Your task to perform on an android device: set the stopwatch Image 0: 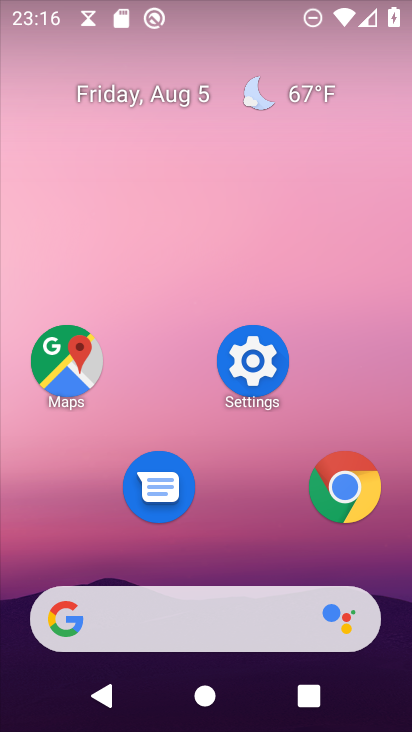
Step 0: press home button
Your task to perform on an android device: set the stopwatch Image 1: 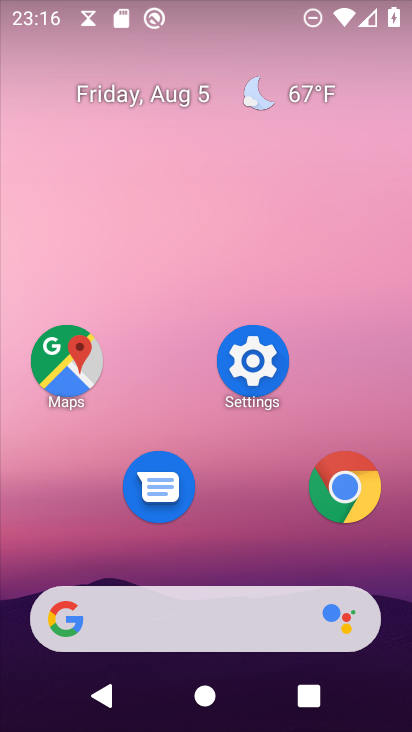
Step 1: drag from (185, 610) to (271, 83)
Your task to perform on an android device: set the stopwatch Image 2: 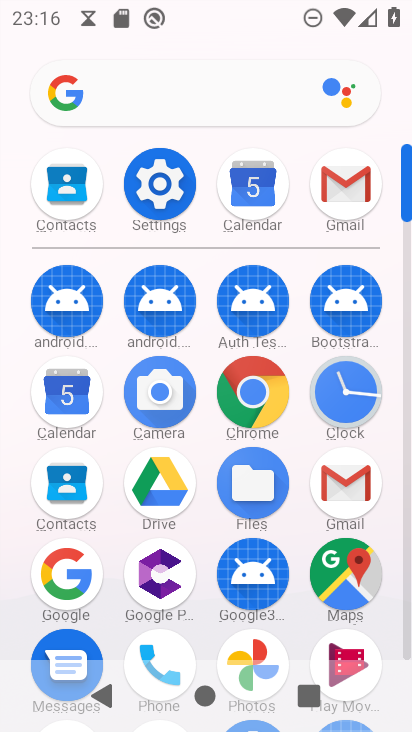
Step 2: click (339, 394)
Your task to perform on an android device: set the stopwatch Image 3: 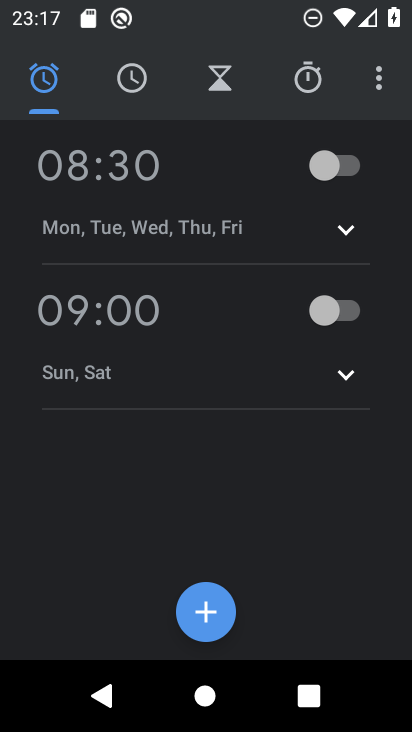
Step 3: click (313, 85)
Your task to perform on an android device: set the stopwatch Image 4: 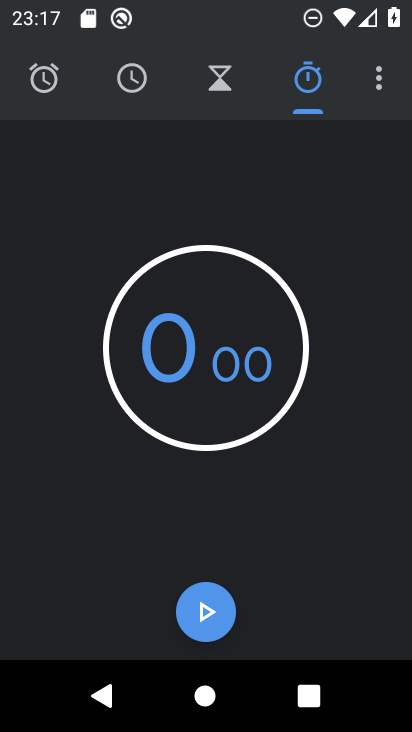
Step 4: click (227, 356)
Your task to perform on an android device: set the stopwatch Image 5: 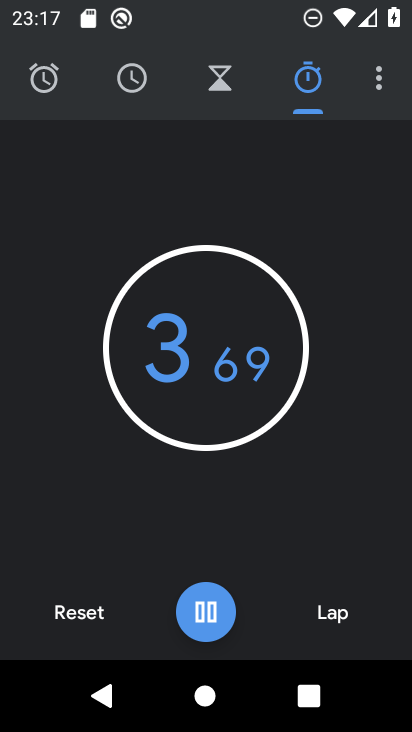
Step 5: click (203, 340)
Your task to perform on an android device: set the stopwatch Image 6: 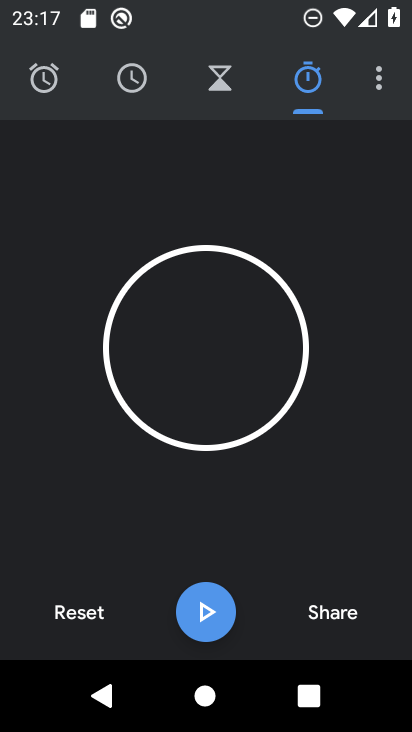
Step 6: task complete